Your task to perform on an android device: turn on javascript in the chrome app Image 0: 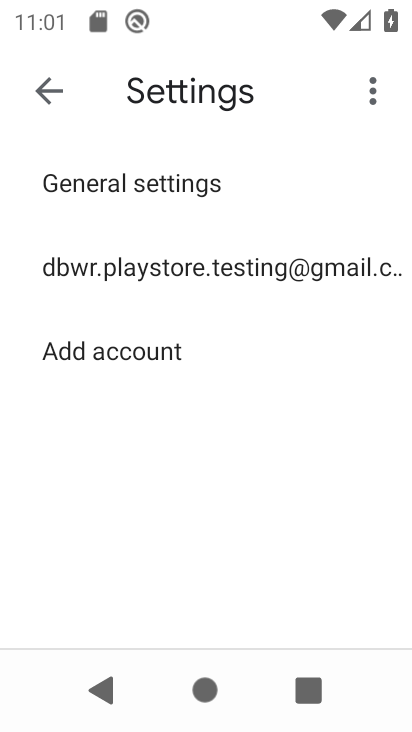
Step 0: press home button
Your task to perform on an android device: turn on javascript in the chrome app Image 1: 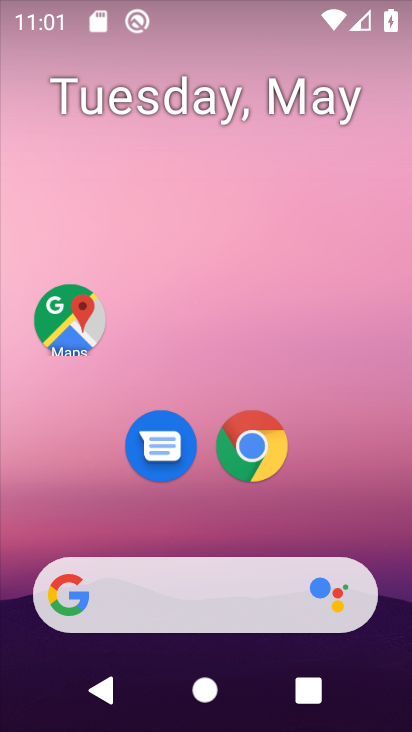
Step 1: click (253, 444)
Your task to perform on an android device: turn on javascript in the chrome app Image 2: 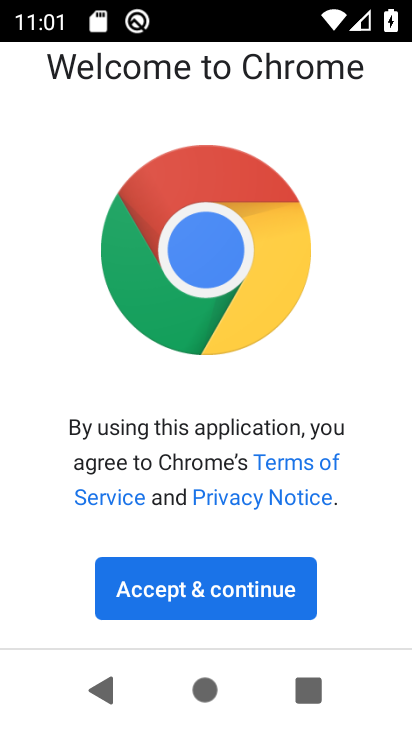
Step 2: click (198, 583)
Your task to perform on an android device: turn on javascript in the chrome app Image 3: 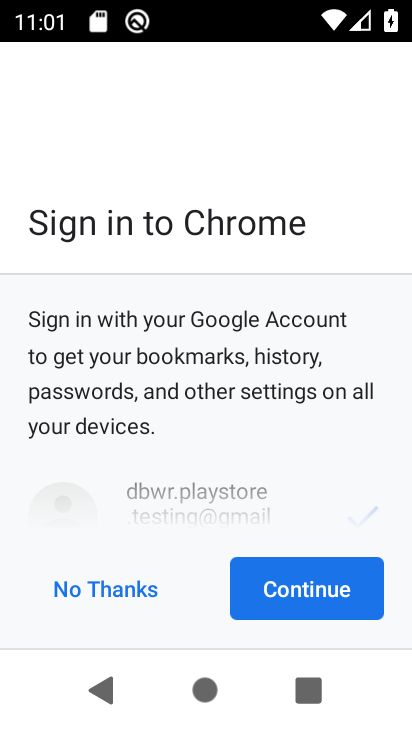
Step 3: click (291, 585)
Your task to perform on an android device: turn on javascript in the chrome app Image 4: 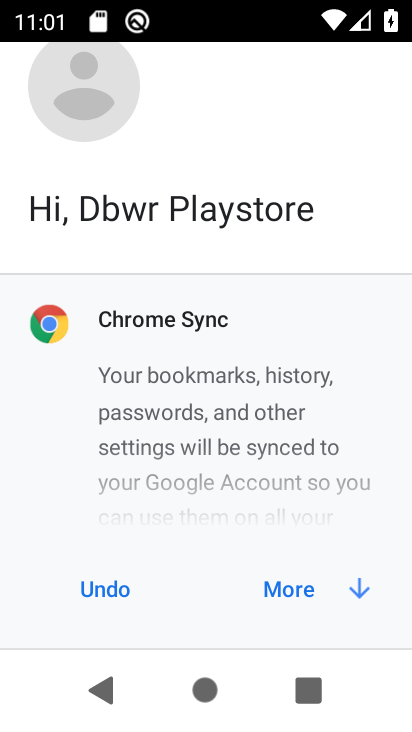
Step 4: click (291, 585)
Your task to perform on an android device: turn on javascript in the chrome app Image 5: 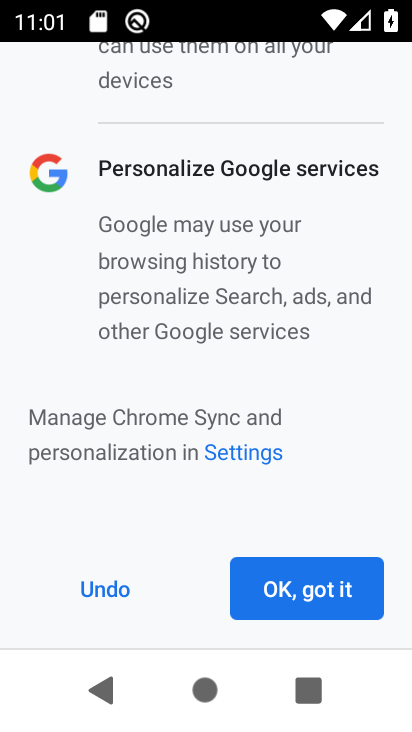
Step 5: click (291, 585)
Your task to perform on an android device: turn on javascript in the chrome app Image 6: 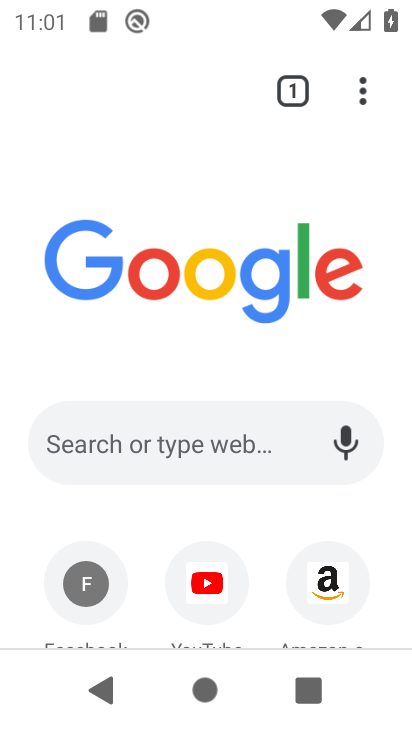
Step 6: click (362, 89)
Your task to perform on an android device: turn on javascript in the chrome app Image 7: 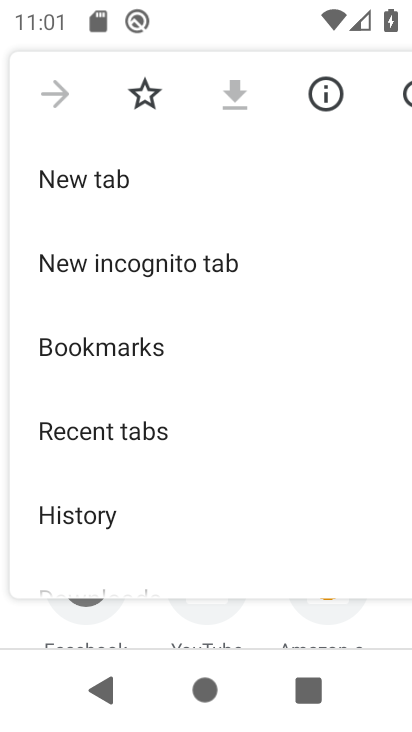
Step 7: drag from (137, 473) to (181, 369)
Your task to perform on an android device: turn on javascript in the chrome app Image 8: 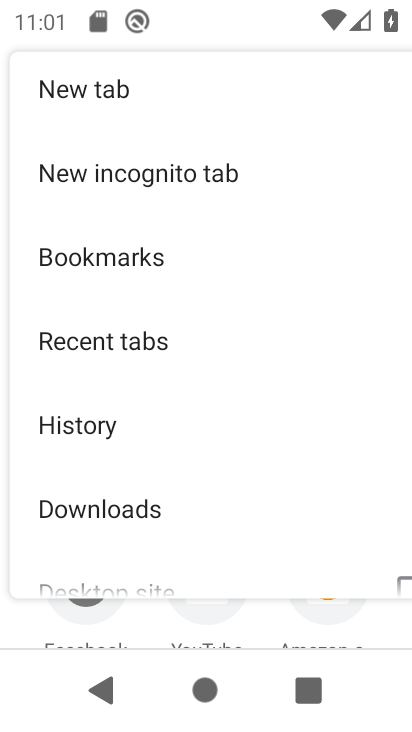
Step 8: drag from (112, 471) to (189, 369)
Your task to perform on an android device: turn on javascript in the chrome app Image 9: 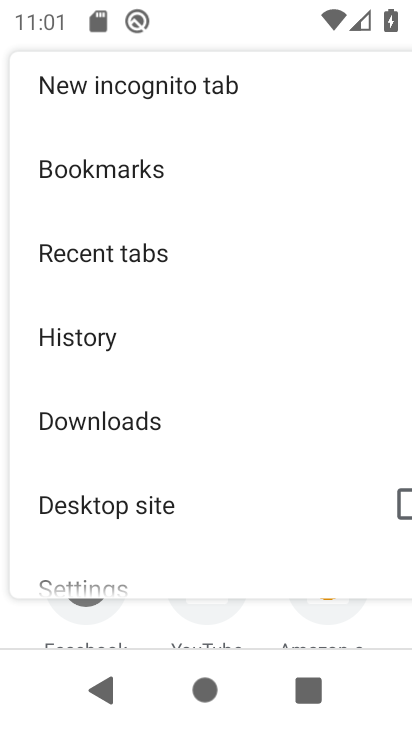
Step 9: drag from (116, 464) to (209, 355)
Your task to perform on an android device: turn on javascript in the chrome app Image 10: 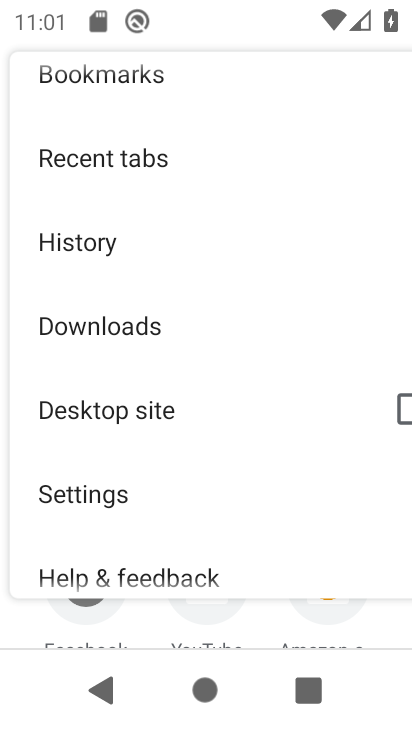
Step 10: click (99, 490)
Your task to perform on an android device: turn on javascript in the chrome app Image 11: 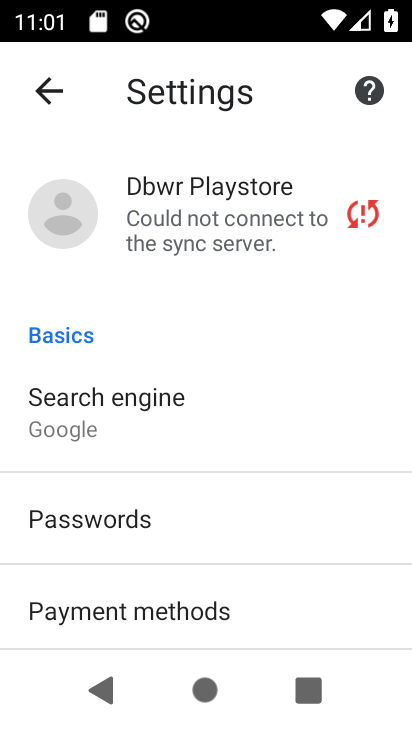
Step 11: drag from (150, 538) to (243, 412)
Your task to perform on an android device: turn on javascript in the chrome app Image 12: 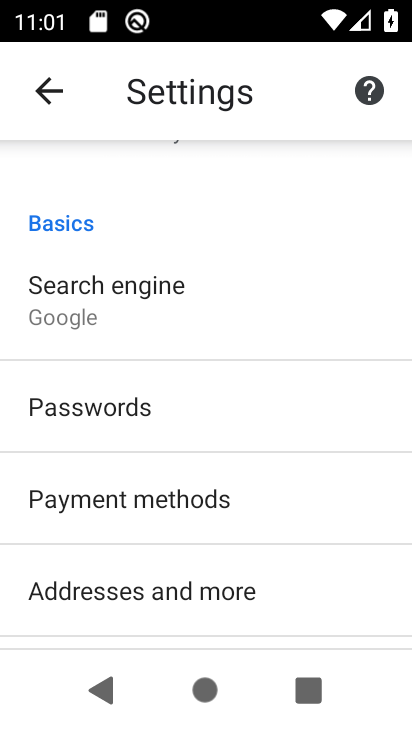
Step 12: drag from (153, 526) to (246, 418)
Your task to perform on an android device: turn on javascript in the chrome app Image 13: 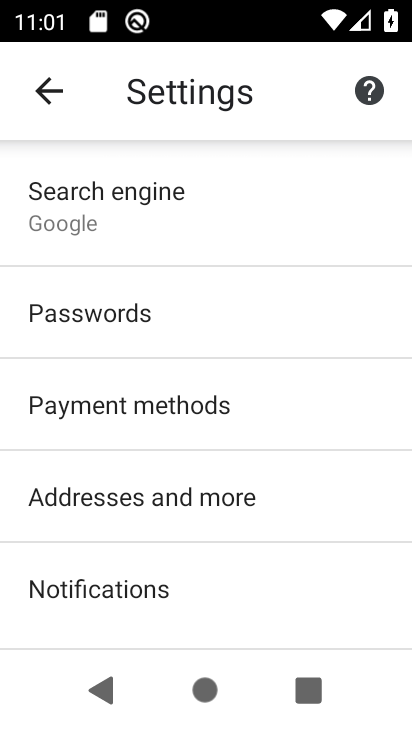
Step 13: drag from (138, 523) to (219, 414)
Your task to perform on an android device: turn on javascript in the chrome app Image 14: 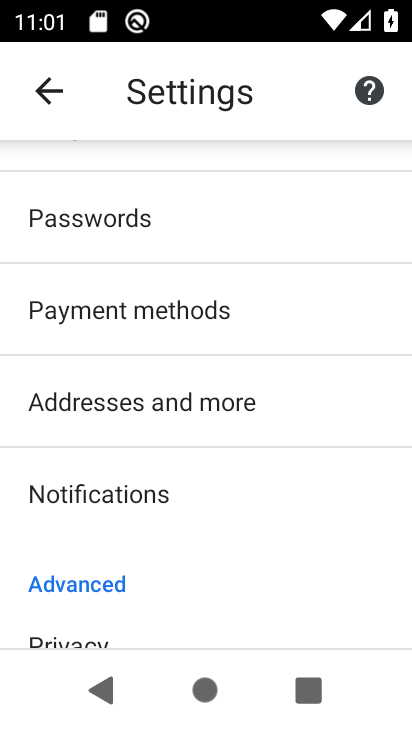
Step 14: drag from (115, 527) to (207, 402)
Your task to perform on an android device: turn on javascript in the chrome app Image 15: 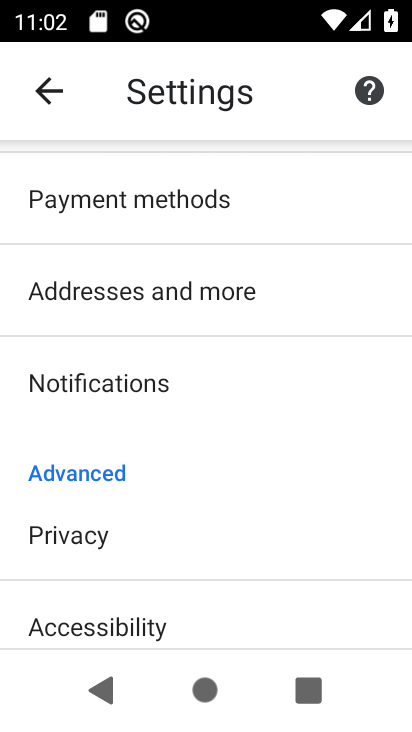
Step 15: drag from (105, 591) to (208, 472)
Your task to perform on an android device: turn on javascript in the chrome app Image 16: 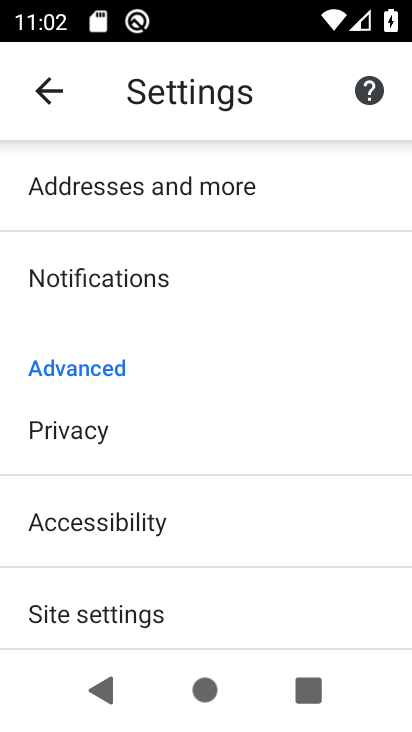
Step 16: drag from (79, 588) to (190, 451)
Your task to perform on an android device: turn on javascript in the chrome app Image 17: 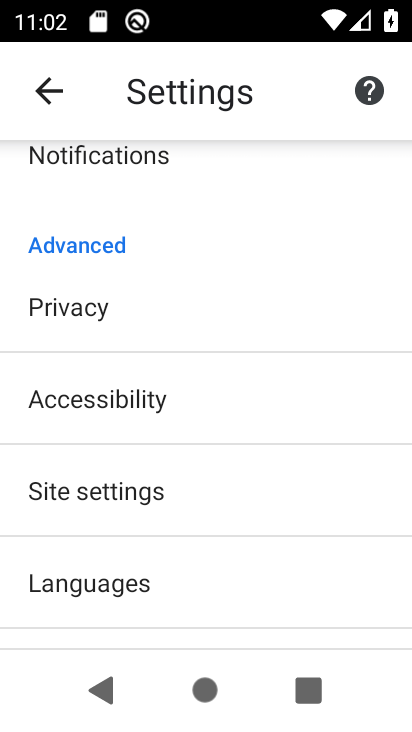
Step 17: click (129, 492)
Your task to perform on an android device: turn on javascript in the chrome app Image 18: 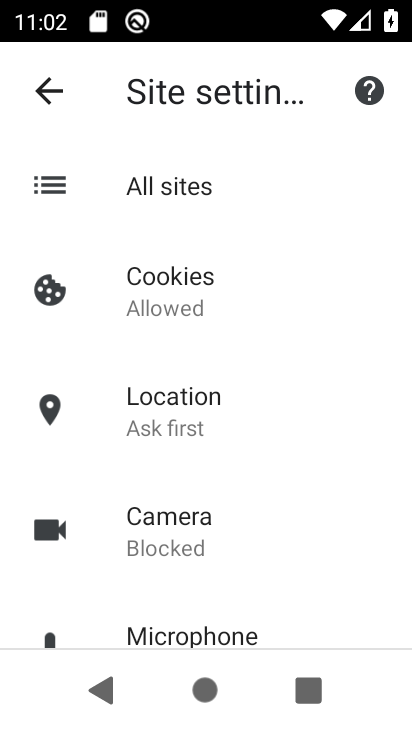
Step 18: drag from (180, 480) to (259, 378)
Your task to perform on an android device: turn on javascript in the chrome app Image 19: 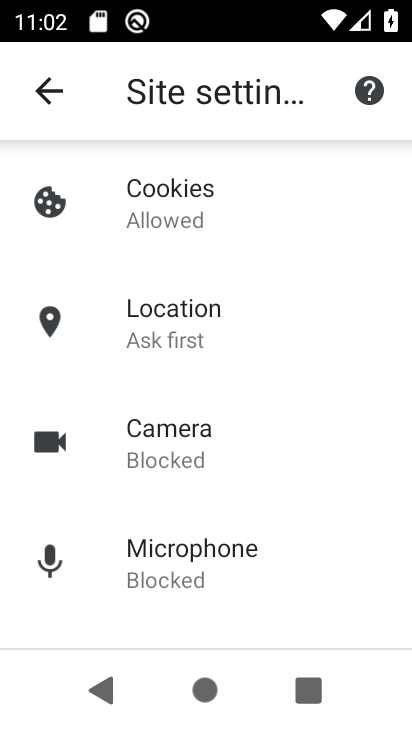
Step 19: drag from (171, 501) to (258, 398)
Your task to perform on an android device: turn on javascript in the chrome app Image 20: 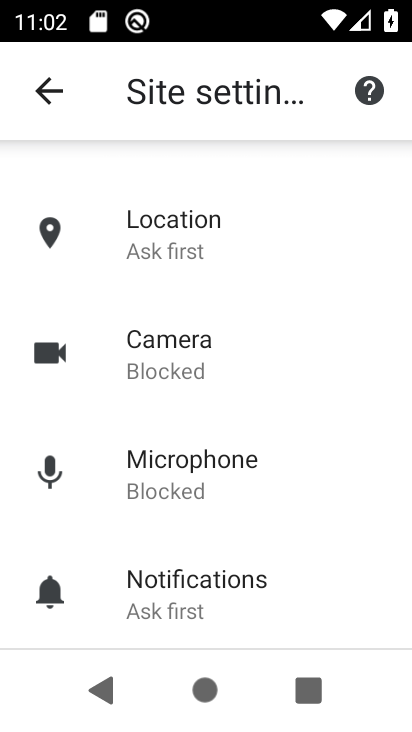
Step 20: drag from (173, 531) to (253, 426)
Your task to perform on an android device: turn on javascript in the chrome app Image 21: 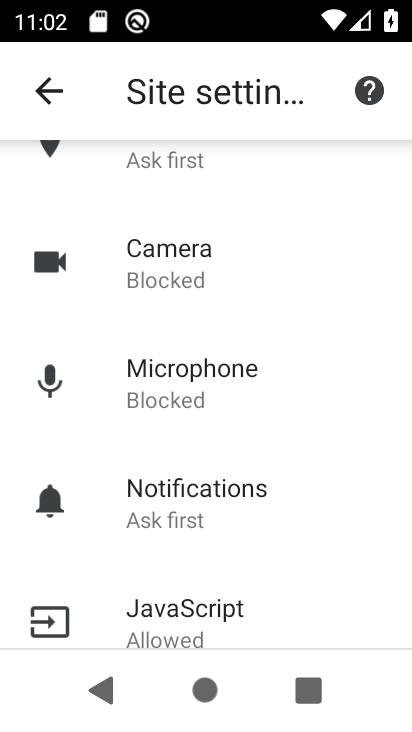
Step 21: drag from (179, 550) to (267, 453)
Your task to perform on an android device: turn on javascript in the chrome app Image 22: 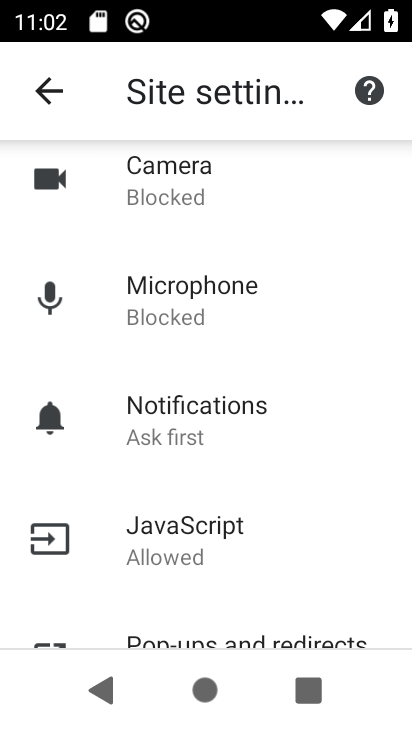
Step 22: click (191, 535)
Your task to perform on an android device: turn on javascript in the chrome app Image 23: 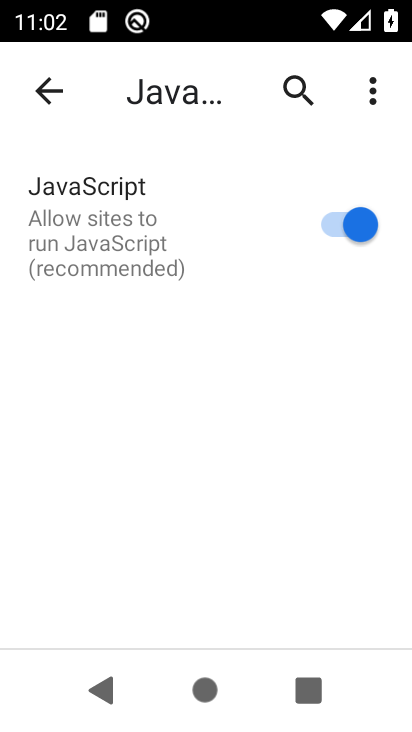
Step 23: task complete